Your task to perform on an android device: Open Maps and search for coffee Image 0: 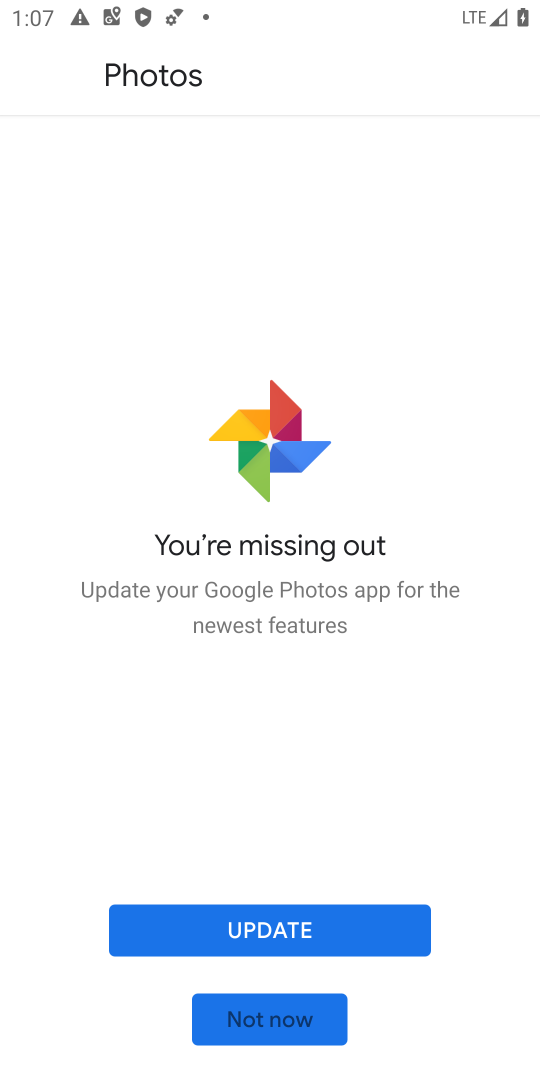
Step 0: press back button
Your task to perform on an android device: Open Maps and search for coffee Image 1: 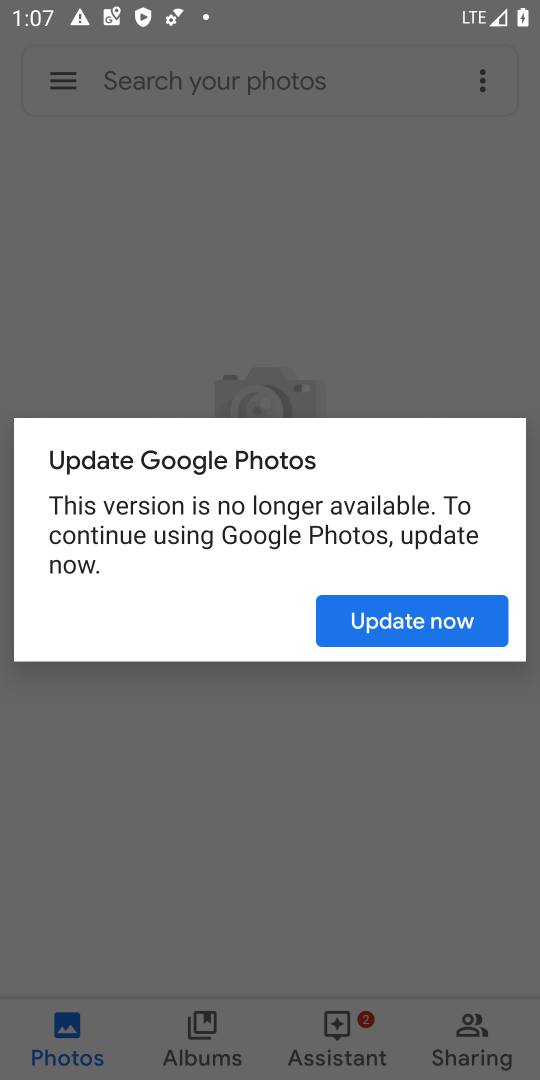
Step 1: press back button
Your task to perform on an android device: Open Maps and search for coffee Image 2: 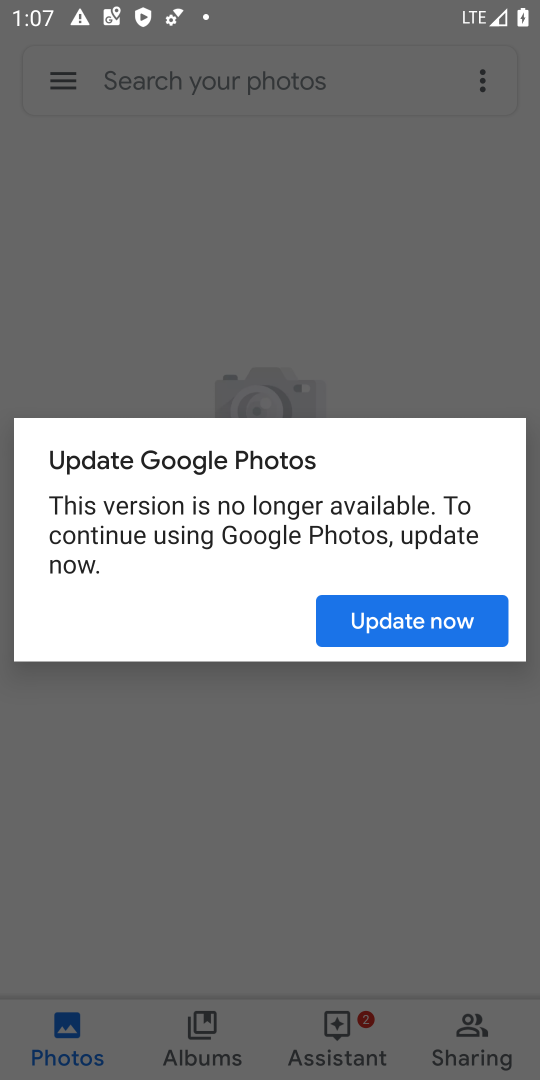
Step 2: press back button
Your task to perform on an android device: Open Maps and search for coffee Image 3: 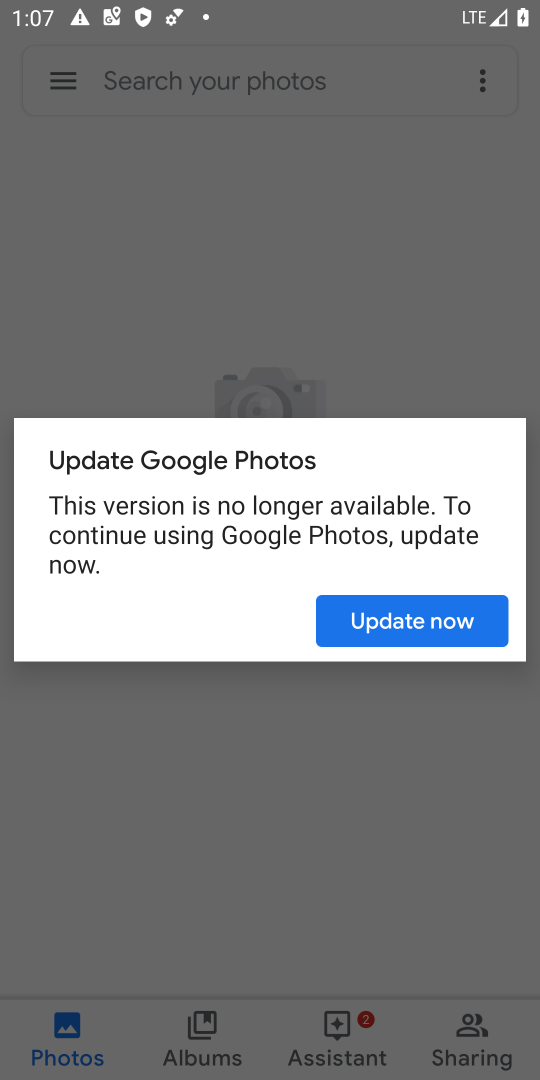
Step 3: press home button
Your task to perform on an android device: Open Maps and search for coffee Image 4: 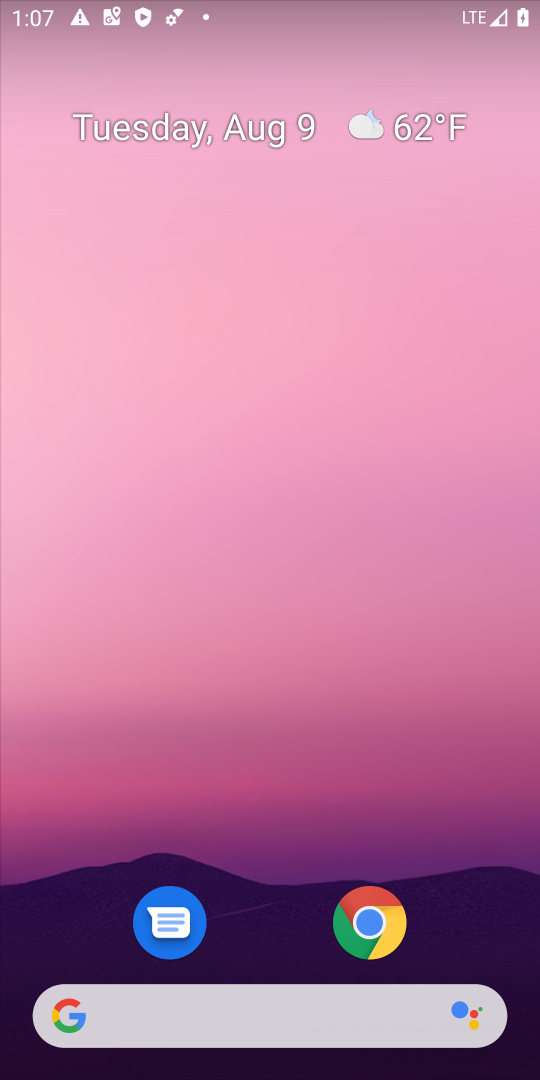
Step 4: drag from (265, 956) to (332, 215)
Your task to perform on an android device: Open Maps and search for coffee Image 5: 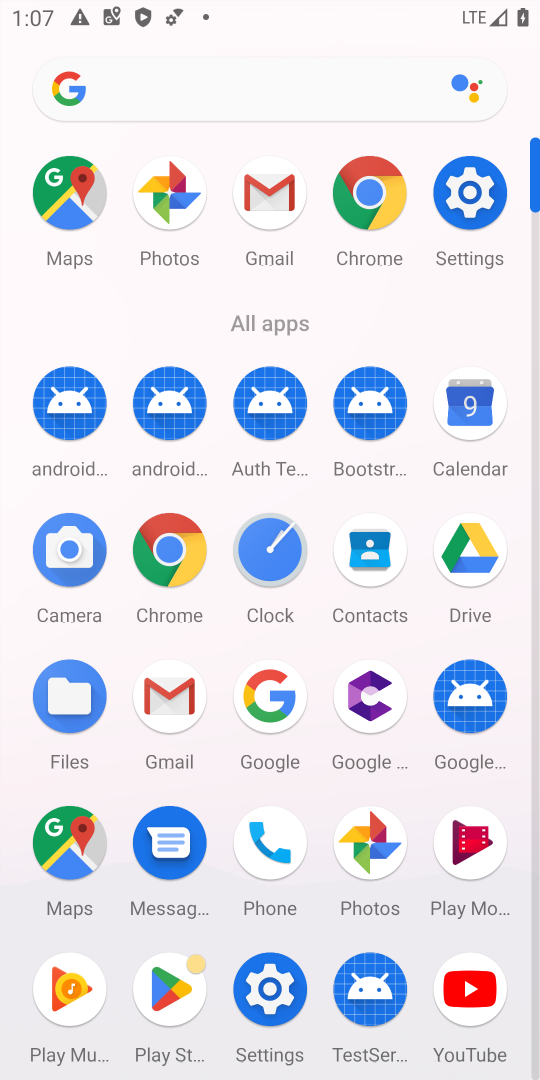
Step 5: click (52, 861)
Your task to perform on an android device: Open Maps and search for coffee Image 6: 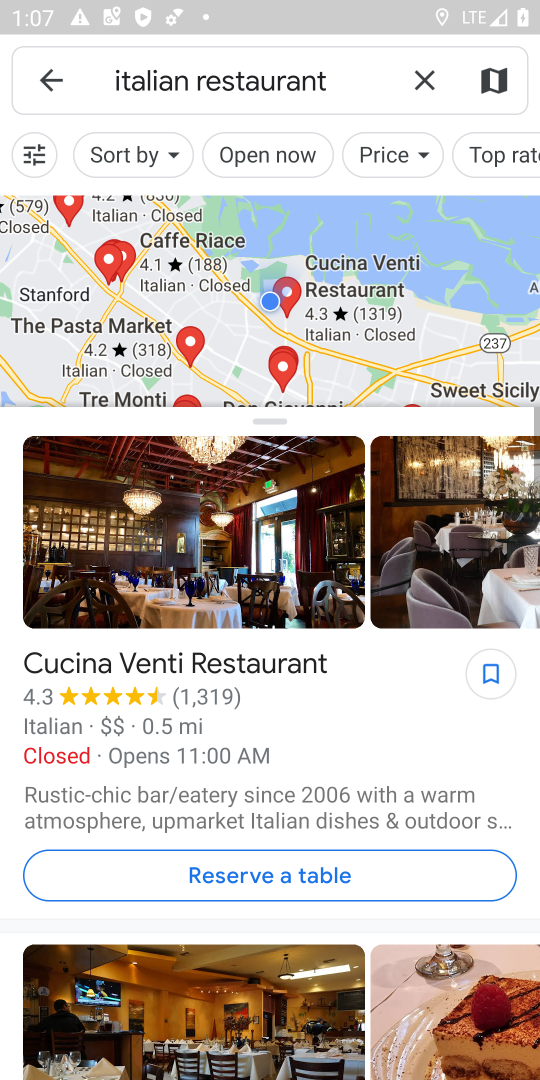
Step 6: click (65, 79)
Your task to perform on an android device: Open Maps and search for coffee Image 7: 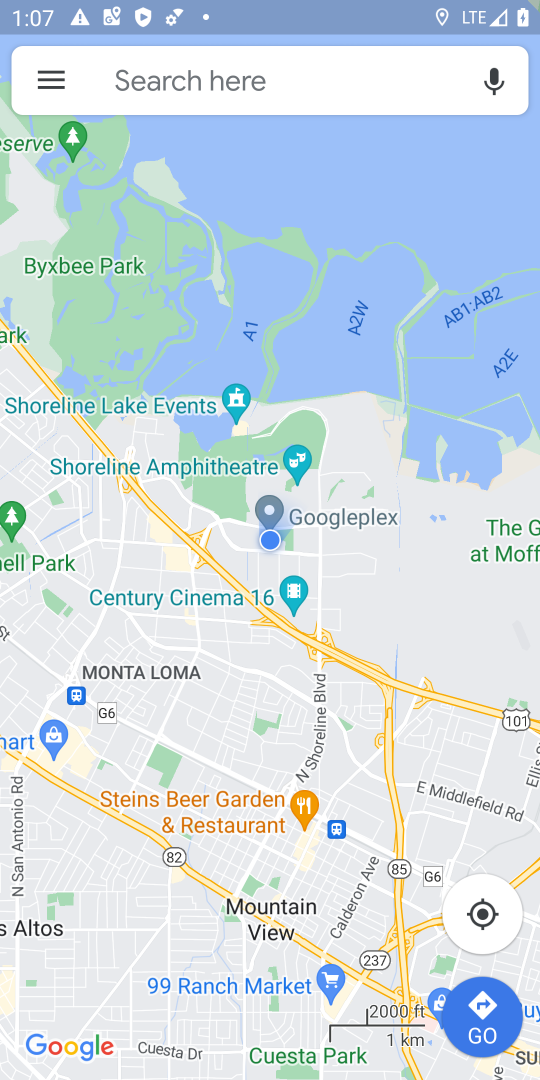
Step 7: click (113, 80)
Your task to perform on an android device: Open Maps and search for coffee Image 8: 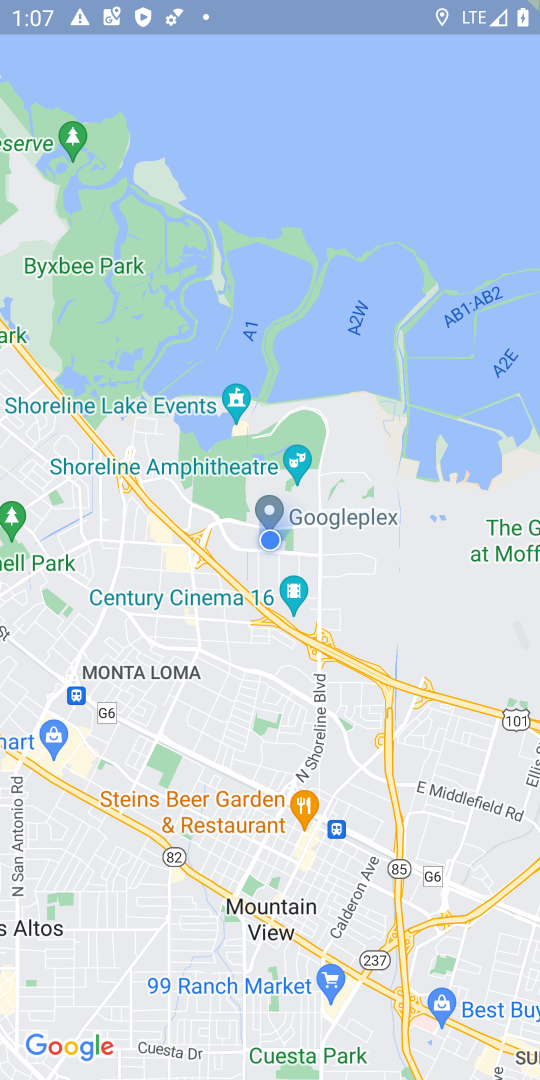
Step 8: press back button
Your task to perform on an android device: Open Maps and search for coffee Image 9: 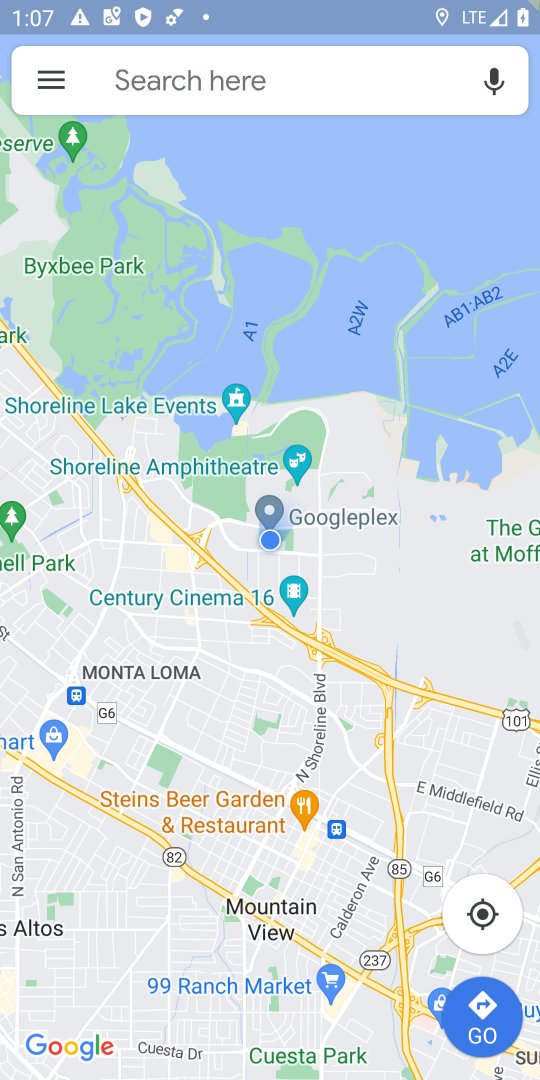
Step 9: click (368, 94)
Your task to perform on an android device: Open Maps and search for coffee Image 10: 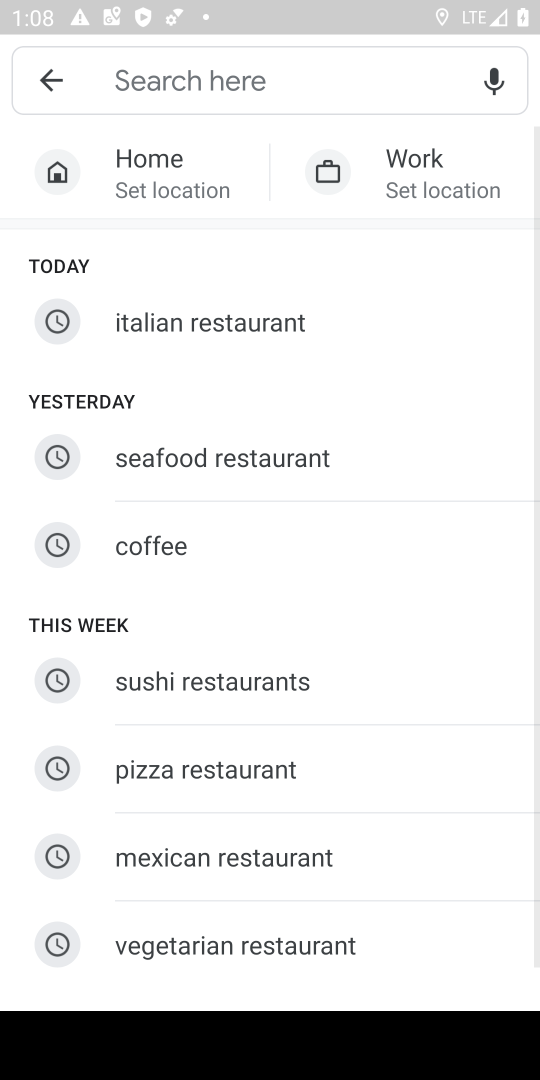
Step 10: click (145, 534)
Your task to perform on an android device: Open Maps and search for coffee Image 11: 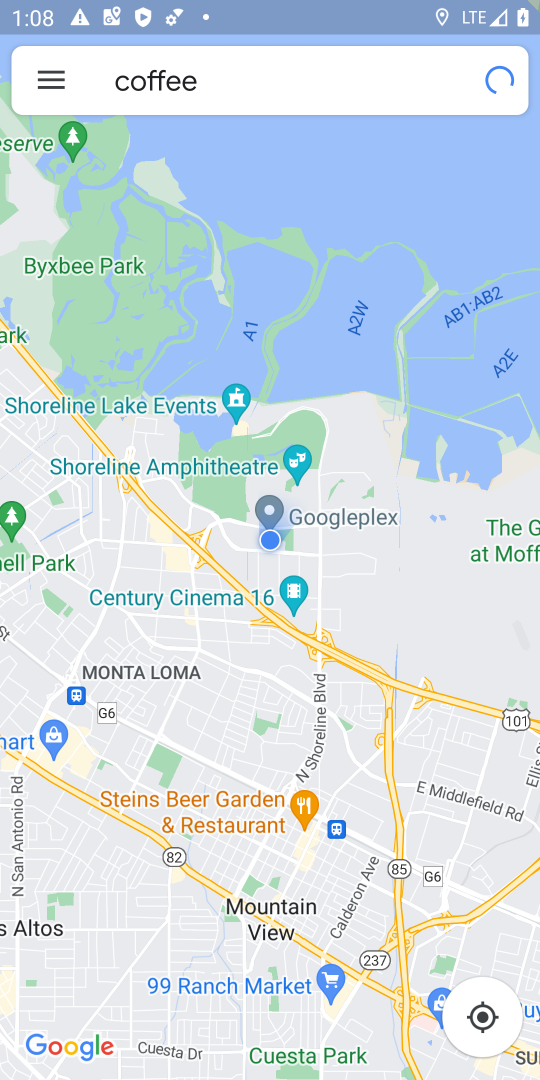
Step 11: task complete